Your task to perform on an android device: Search for Italian restaurants on Maps Image 0: 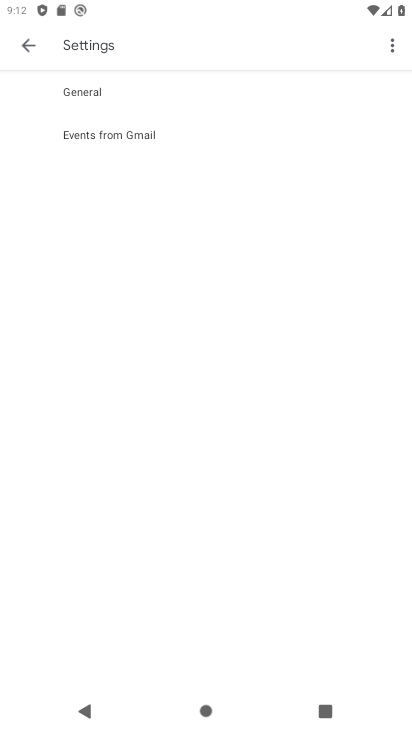
Step 0: press home button
Your task to perform on an android device: Search for Italian restaurants on Maps Image 1: 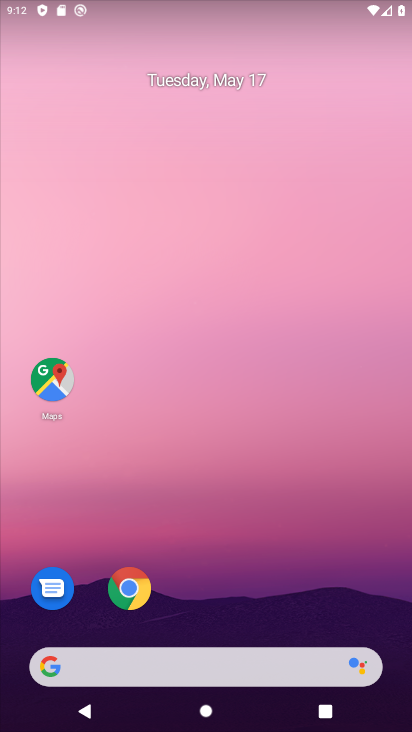
Step 1: click (30, 359)
Your task to perform on an android device: Search for Italian restaurants on Maps Image 2: 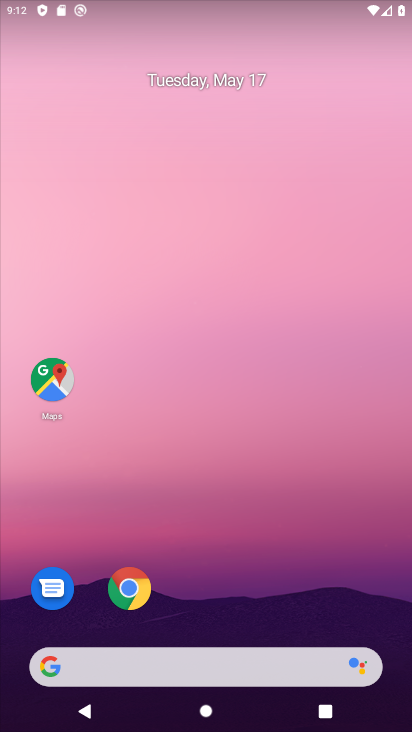
Step 2: click (42, 368)
Your task to perform on an android device: Search for Italian restaurants on Maps Image 3: 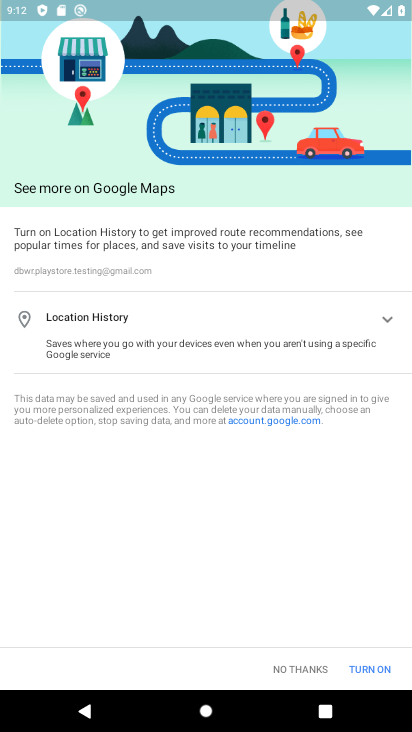
Step 3: click (363, 666)
Your task to perform on an android device: Search for Italian restaurants on Maps Image 4: 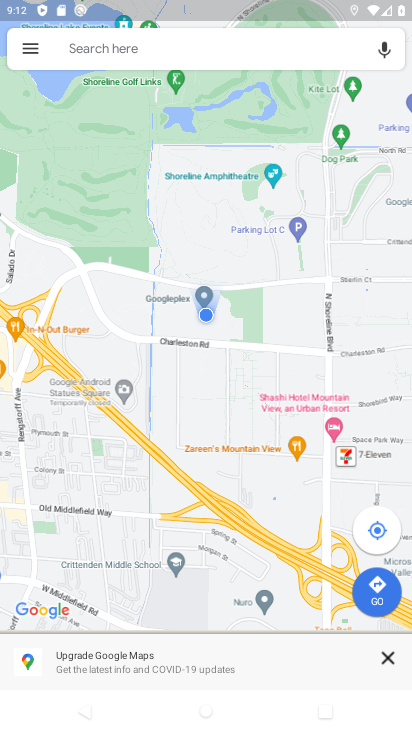
Step 4: click (142, 49)
Your task to perform on an android device: Search for Italian restaurants on Maps Image 5: 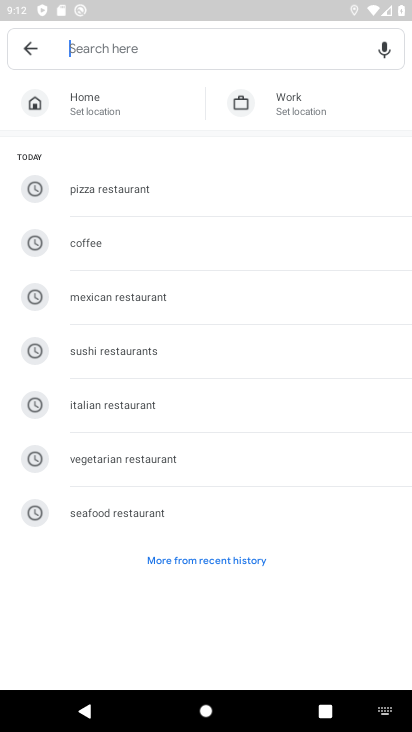
Step 5: type "Italian restaurants"
Your task to perform on an android device: Search for Italian restaurants on Maps Image 6: 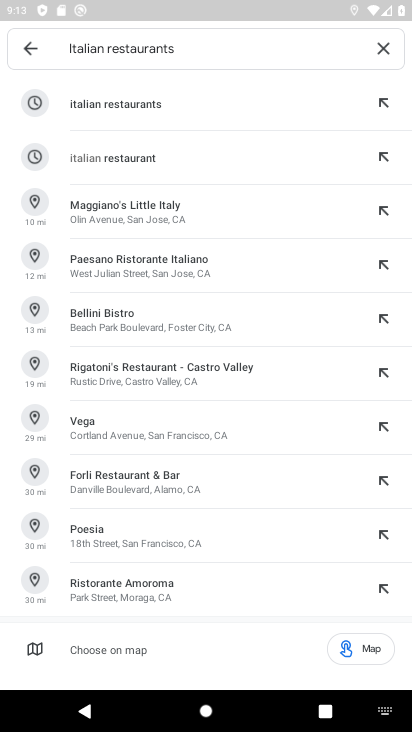
Step 6: click (134, 95)
Your task to perform on an android device: Search for Italian restaurants on Maps Image 7: 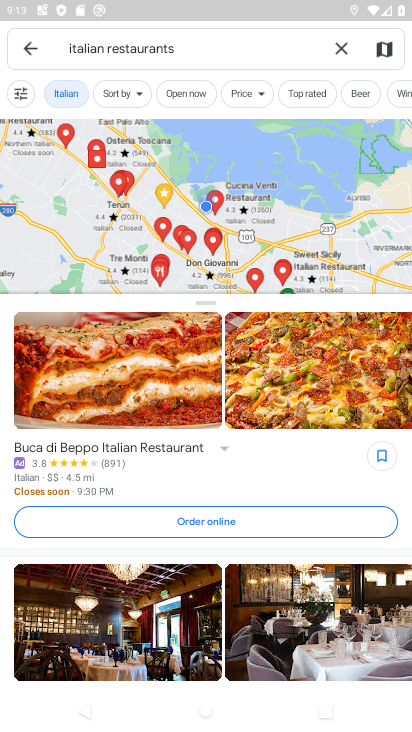
Step 7: task complete